Your task to perform on an android device: change the clock style Image 0: 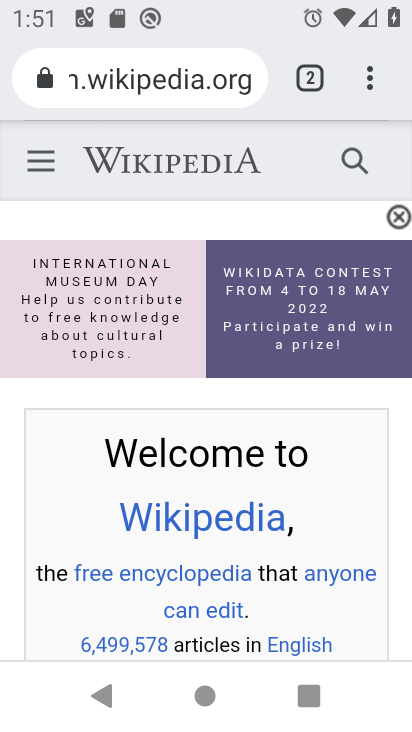
Step 0: press home button
Your task to perform on an android device: change the clock style Image 1: 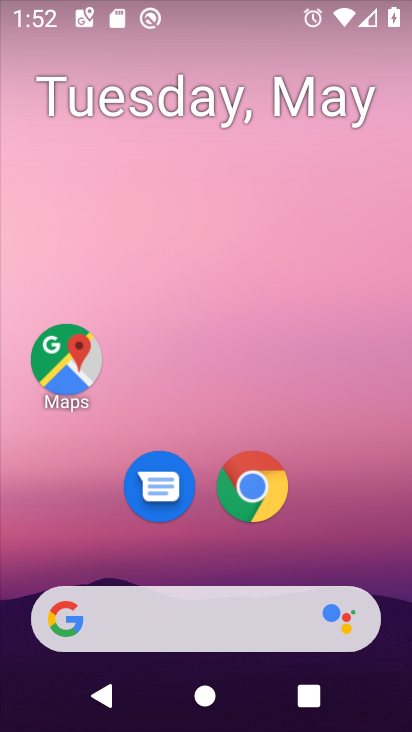
Step 1: drag from (10, 592) to (258, 209)
Your task to perform on an android device: change the clock style Image 2: 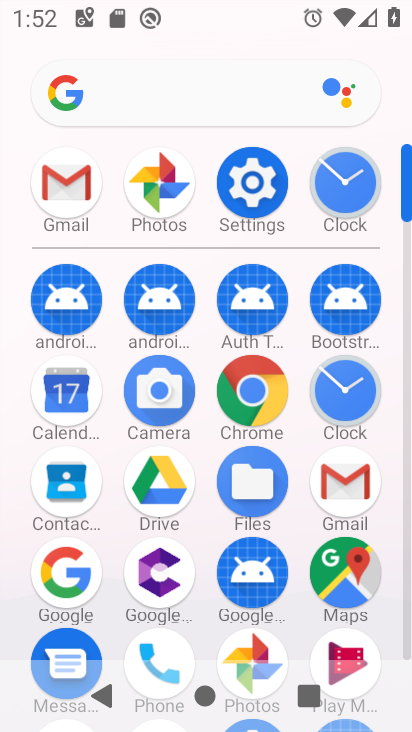
Step 2: click (356, 393)
Your task to perform on an android device: change the clock style Image 3: 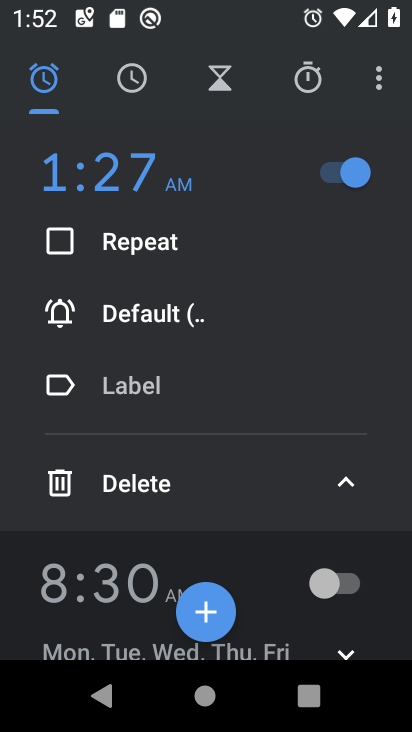
Step 3: click (383, 79)
Your task to perform on an android device: change the clock style Image 4: 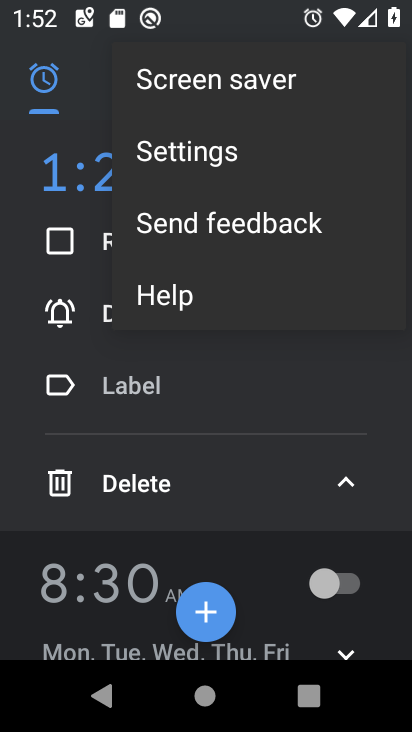
Step 4: click (197, 147)
Your task to perform on an android device: change the clock style Image 5: 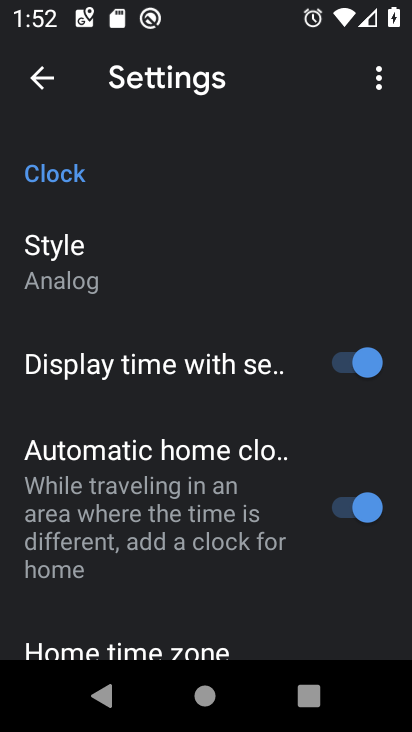
Step 5: click (93, 272)
Your task to perform on an android device: change the clock style Image 6: 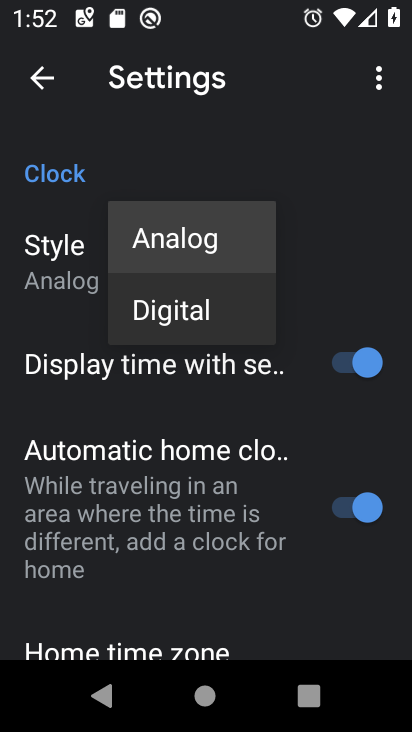
Step 6: click (134, 293)
Your task to perform on an android device: change the clock style Image 7: 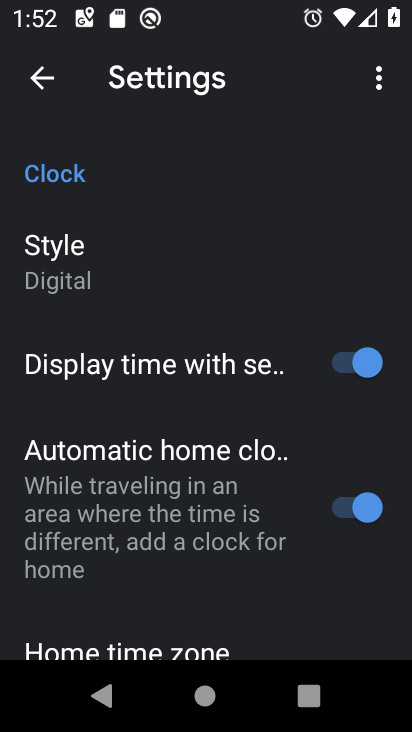
Step 7: task complete